Your task to perform on an android device: Open display settings Image 0: 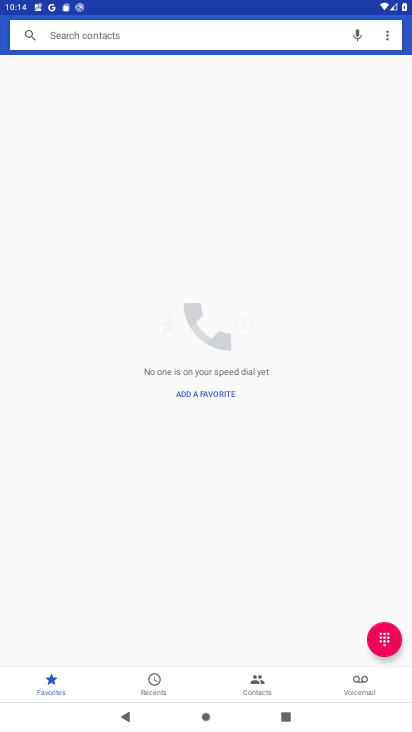
Step 0: press home button
Your task to perform on an android device: Open display settings Image 1: 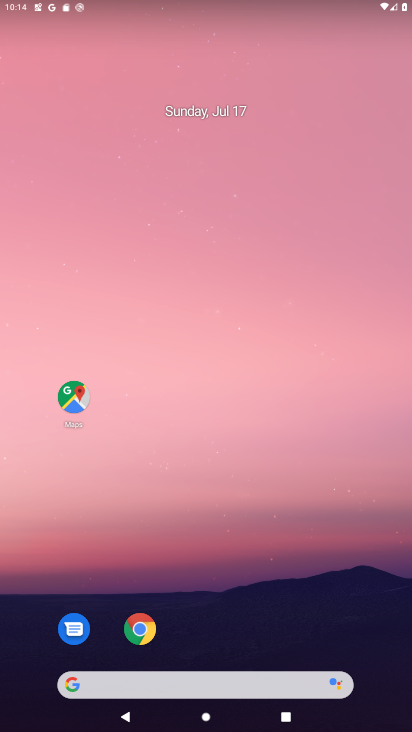
Step 1: drag from (194, 691) to (305, 224)
Your task to perform on an android device: Open display settings Image 2: 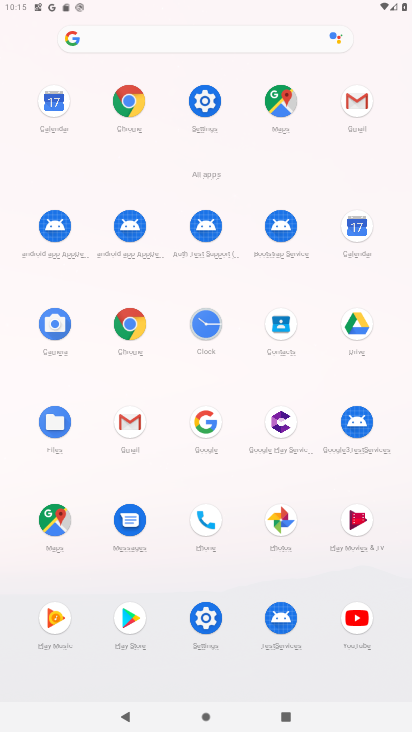
Step 2: click (212, 614)
Your task to perform on an android device: Open display settings Image 3: 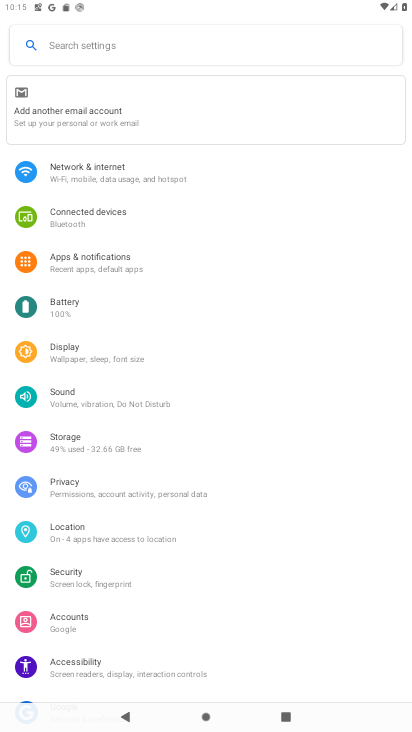
Step 3: click (73, 353)
Your task to perform on an android device: Open display settings Image 4: 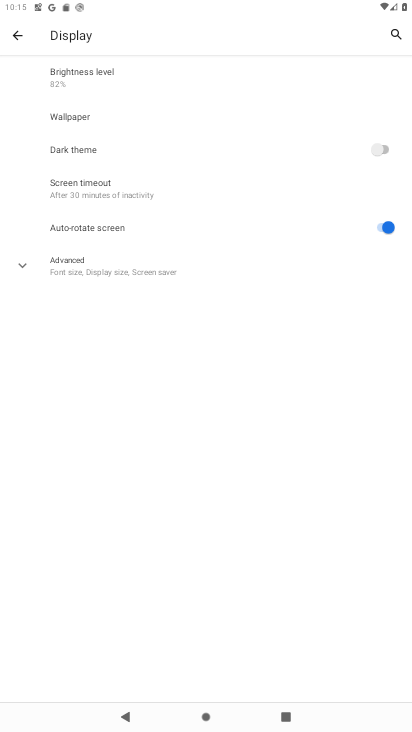
Step 4: task complete